Your task to perform on an android device: Search for Mexican restaurants on Maps Image 0: 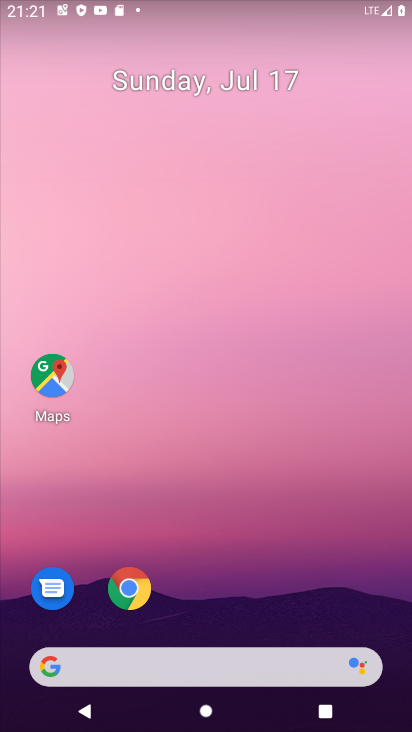
Step 0: press home button
Your task to perform on an android device: Search for Mexican restaurants on Maps Image 1: 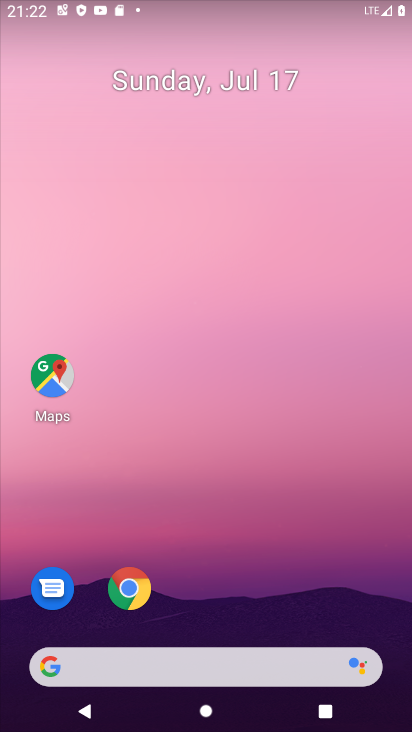
Step 1: click (45, 370)
Your task to perform on an android device: Search for Mexican restaurants on Maps Image 2: 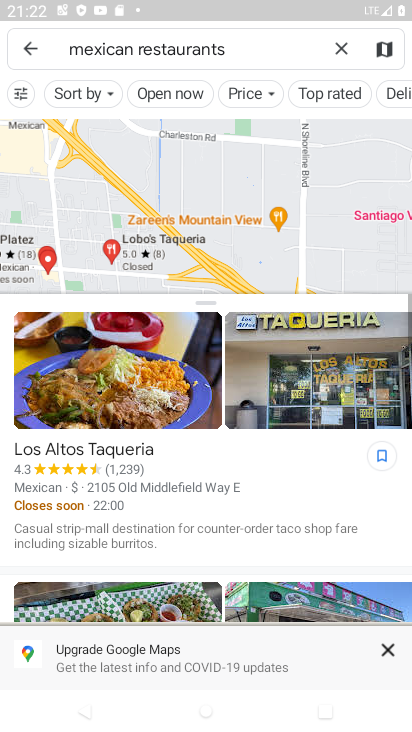
Step 2: task complete